Your task to perform on an android device: Open display settings Image 0: 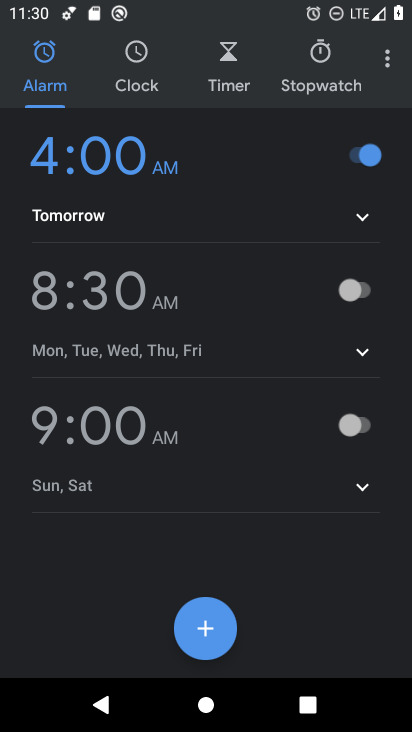
Step 0: press home button
Your task to perform on an android device: Open display settings Image 1: 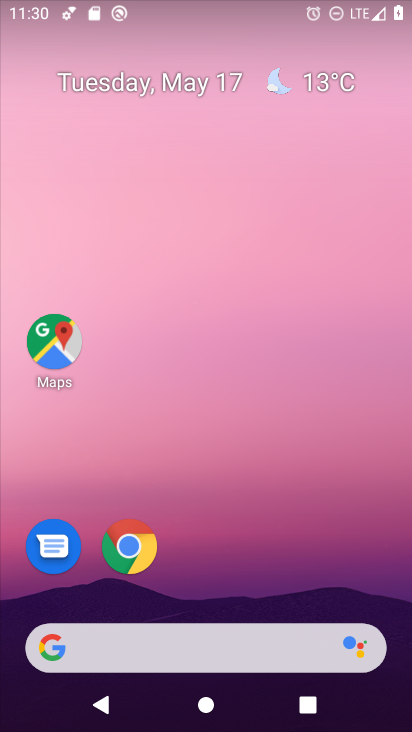
Step 1: drag from (281, 599) to (302, 37)
Your task to perform on an android device: Open display settings Image 2: 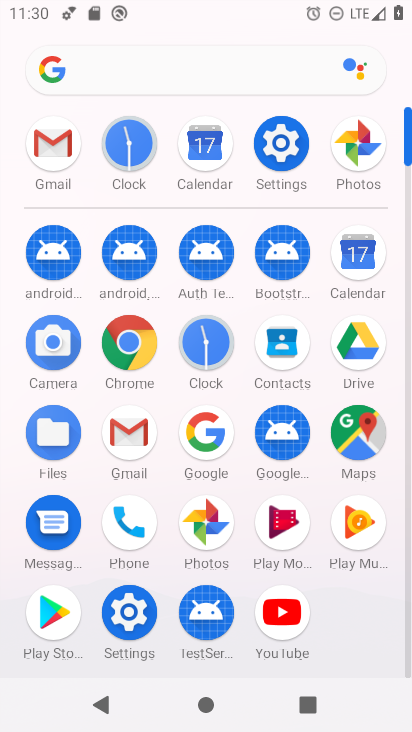
Step 2: click (271, 150)
Your task to perform on an android device: Open display settings Image 3: 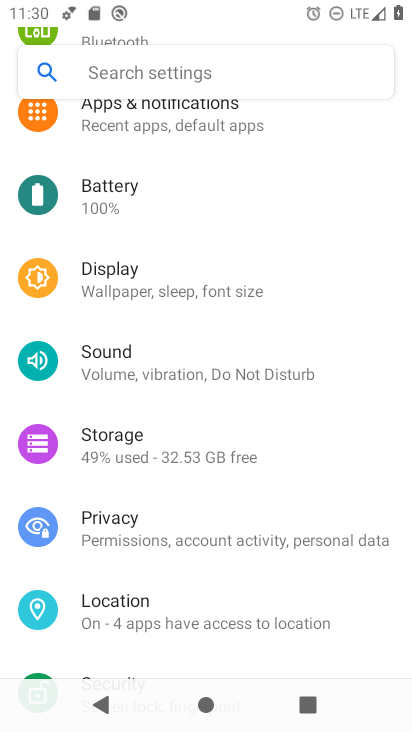
Step 3: click (104, 282)
Your task to perform on an android device: Open display settings Image 4: 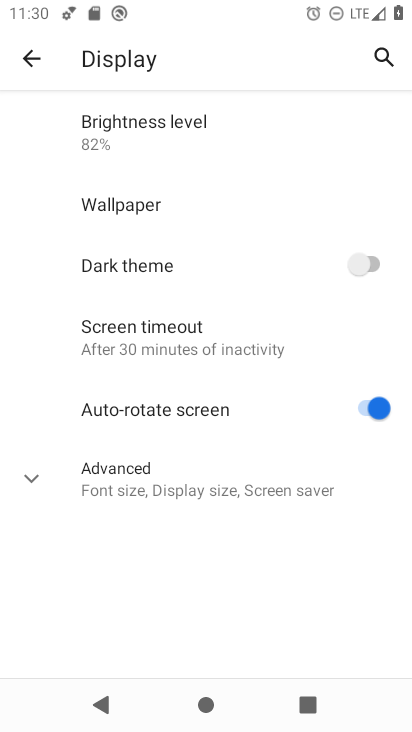
Step 4: task complete